Your task to perform on an android device: Go to wifi settings Image 0: 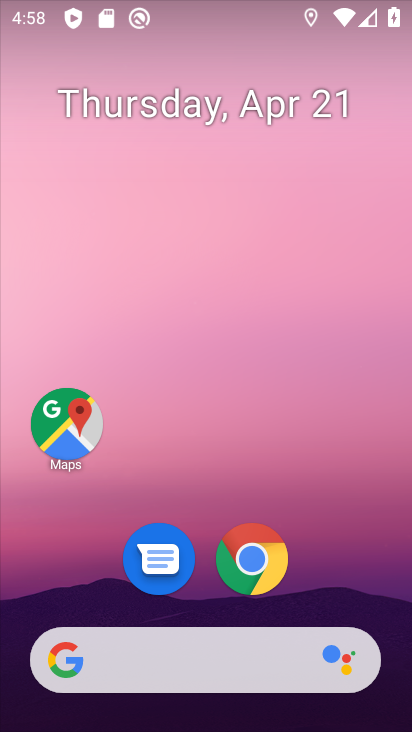
Step 0: drag from (348, 486) to (337, 48)
Your task to perform on an android device: Go to wifi settings Image 1: 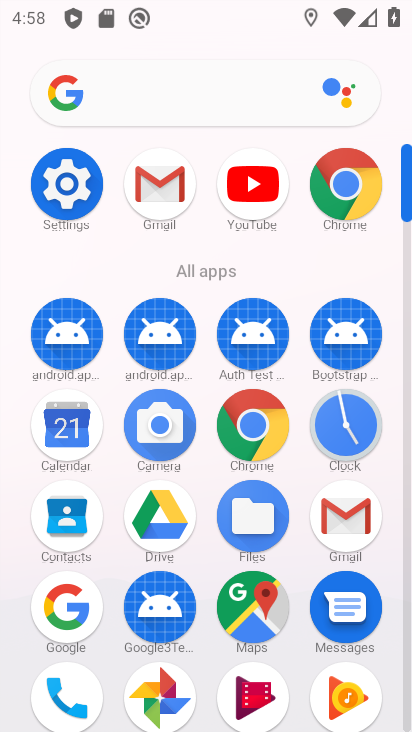
Step 1: click (91, 176)
Your task to perform on an android device: Go to wifi settings Image 2: 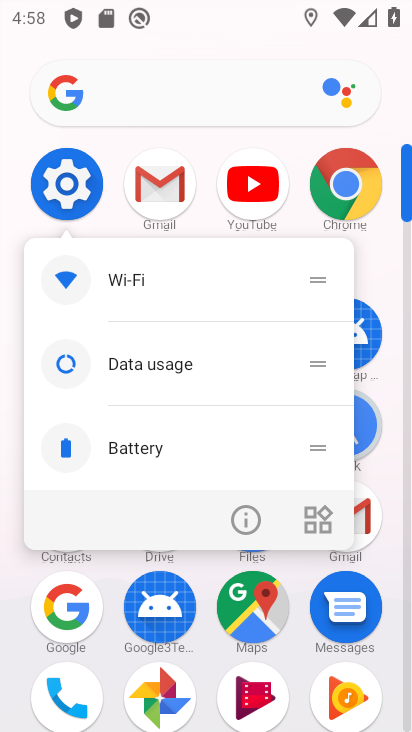
Step 2: click (91, 175)
Your task to perform on an android device: Go to wifi settings Image 3: 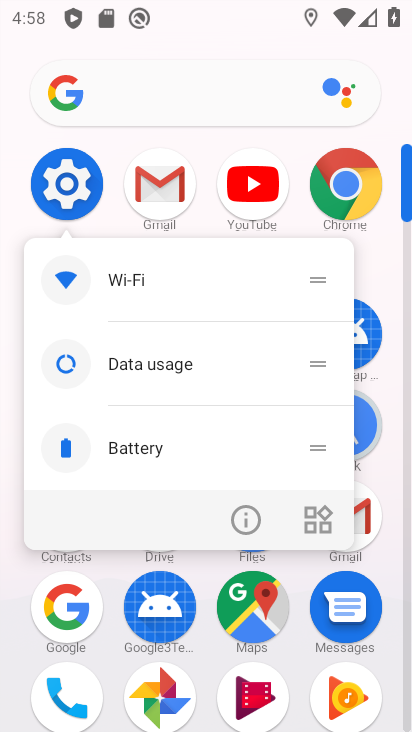
Step 3: click (77, 201)
Your task to perform on an android device: Go to wifi settings Image 4: 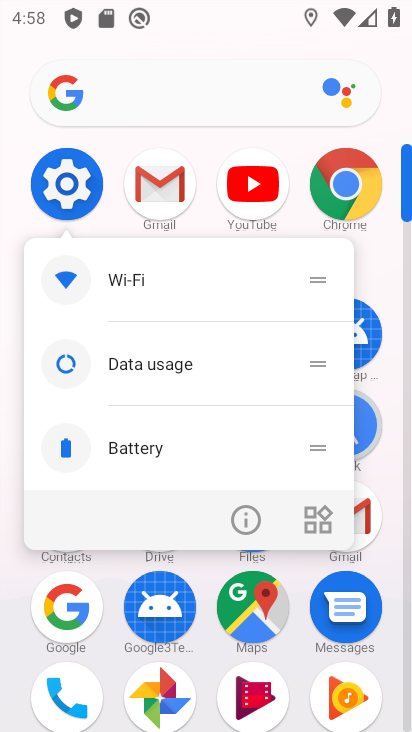
Step 4: click (77, 201)
Your task to perform on an android device: Go to wifi settings Image 5: 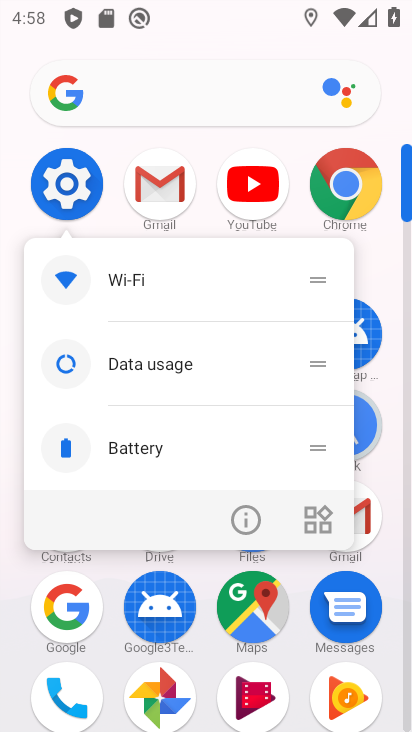
Step 5: click (77, 201)
Your task to perform on an android device: Go to wifi settings Image 6: 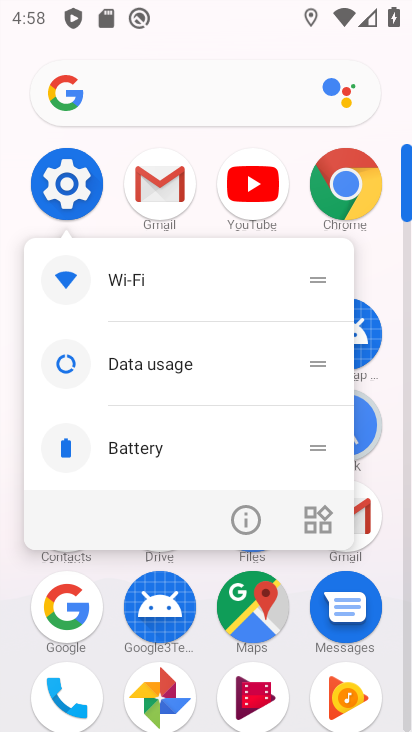
Step 6: click (77, 201)
Your task to perform on an android device: Go to wifi settings Image 7: 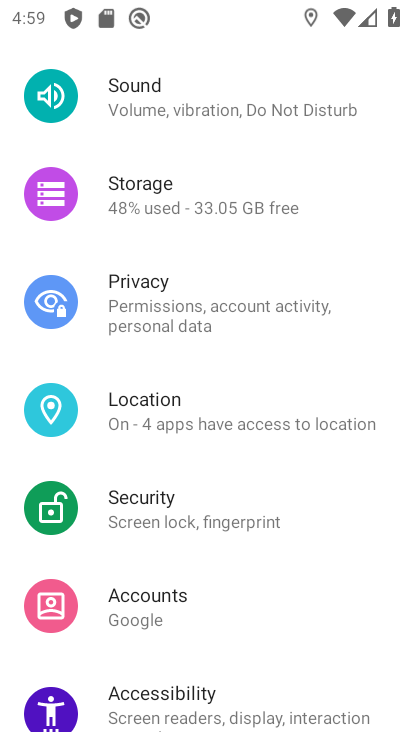
Step 7: drag from (233, 239) to (293, 464)
Your task to perform on an android device: Go to wifi settings Image 8: 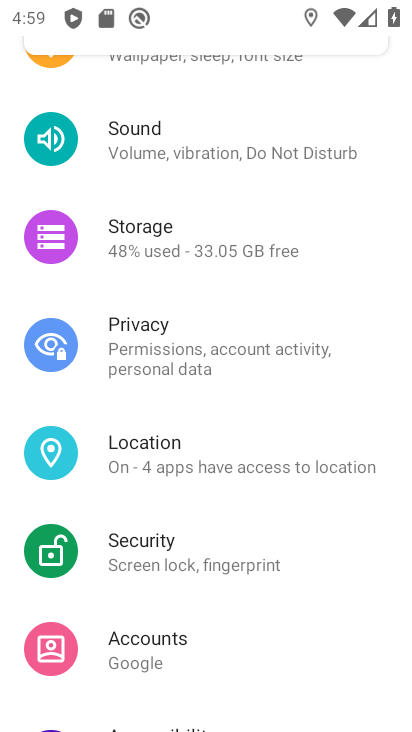
Step 8: drag from (308, 217) to (334, 519)
Your task to perform on an android device: Go to wifi settings Image 9: 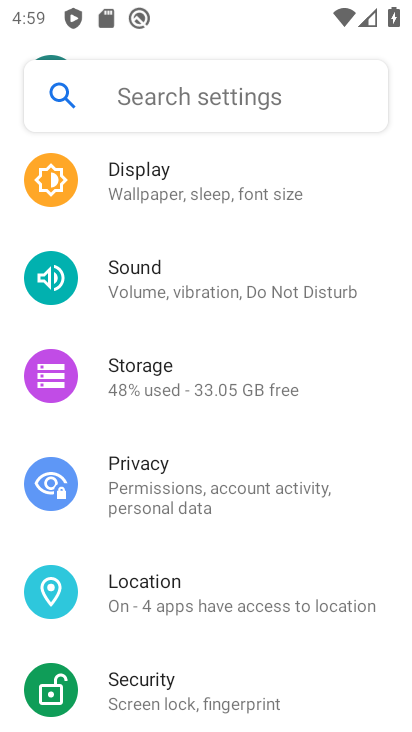
Step 9: drag from (266, 138) to (275, 518)
Your task to perform on an android device: Go to wifi settings Image 10: 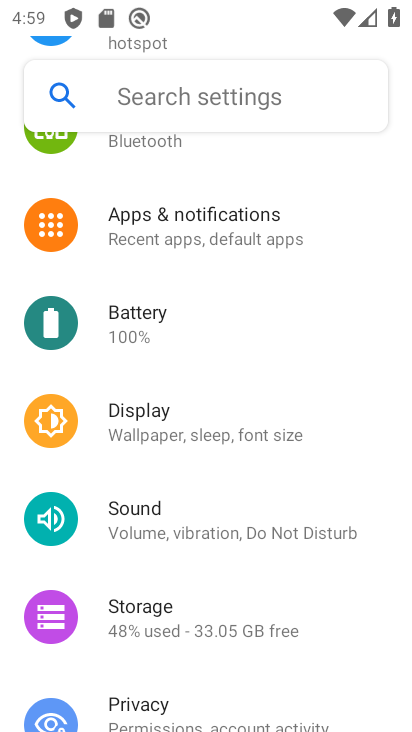
Step 10: drag from (247, 193) to (263, 578)
Your task to perform on an android device: Go to wifi settings Image 11: 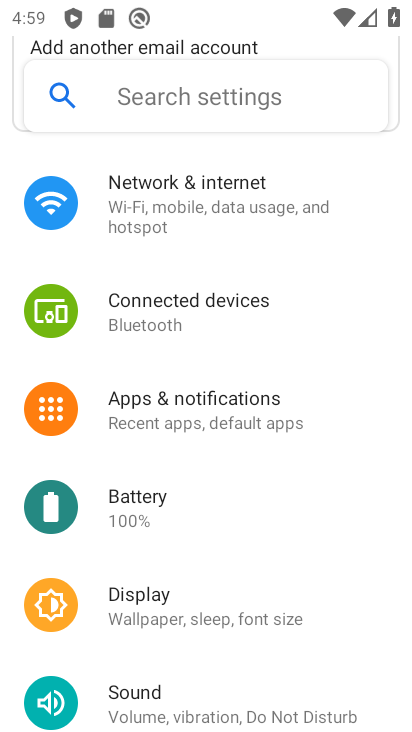
Step 11: click (204, 221)
Your task to perform on an android device: Go to wifi settings Image 12: 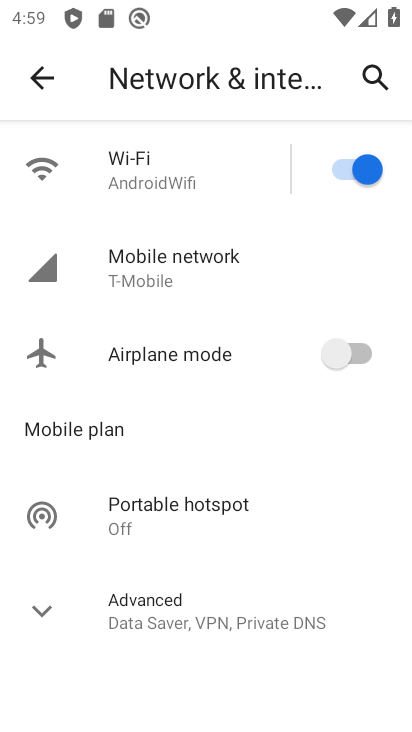
Step 12: click (179, 276)
Your task to perform on an android device: Go to wifi settings Image 13: 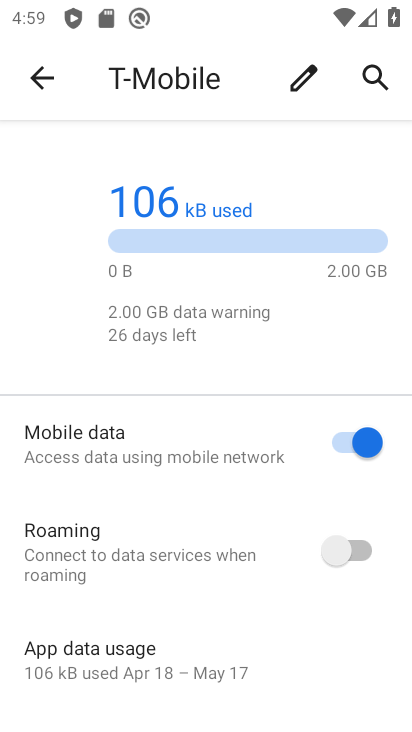
Step 13: task complete